Your task to perform on an android device: Open eBay Image 0: 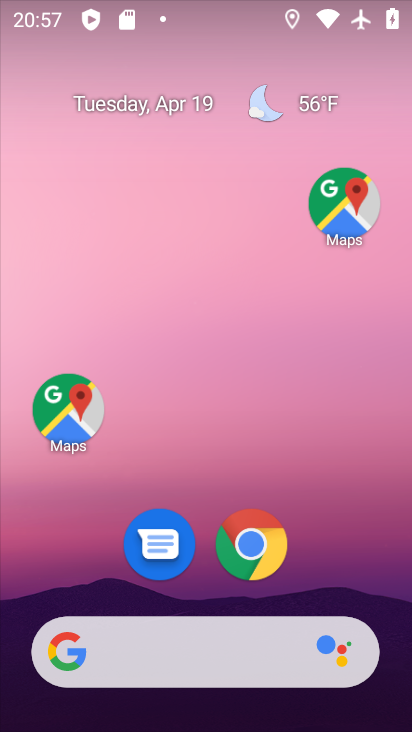
Step 0: drag from (180, 606) to (291, 26)
Your task to perform on an android device: Open eBay Image 1: 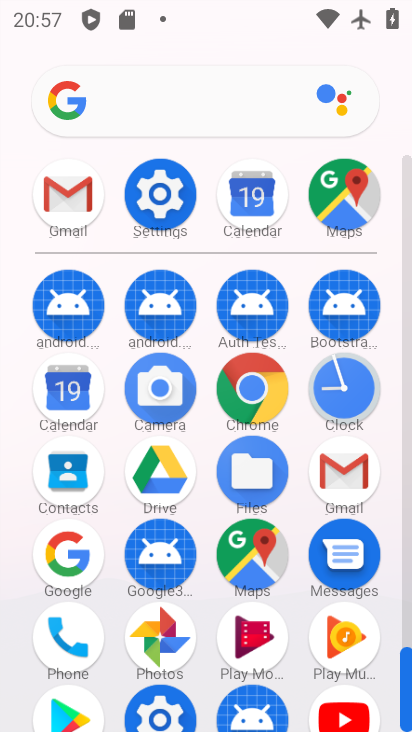
Step 1: click (268, 390)
Your task to perform on an android device: Open eBay Image 2: 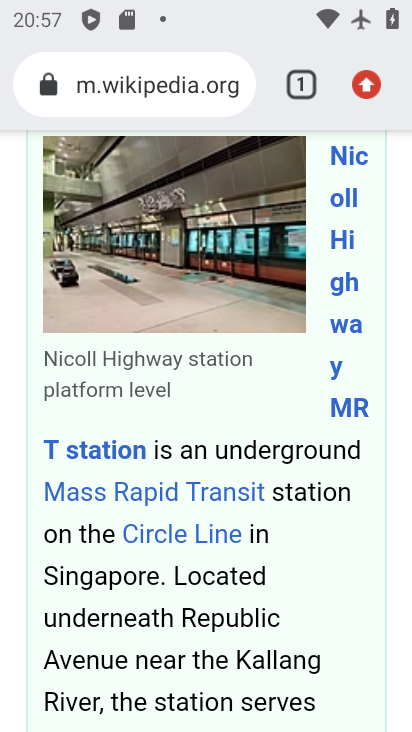
Step 2: click (378, 85)
Your task to perform on an android device: Open eBay Image 3: 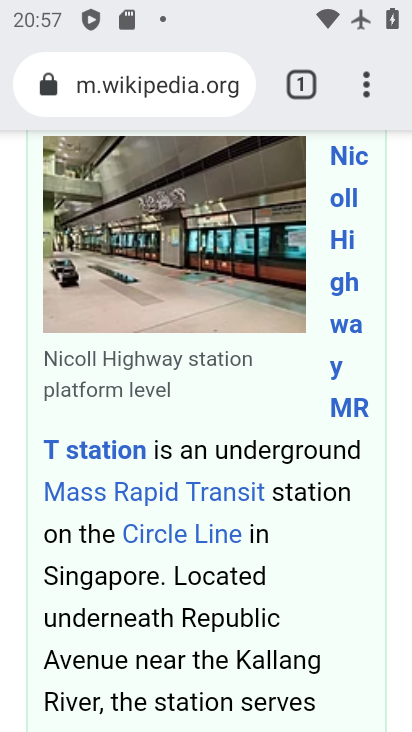
Step 3: click (369, 92)
Your task to perform on an android device: Open eBay Image 4: 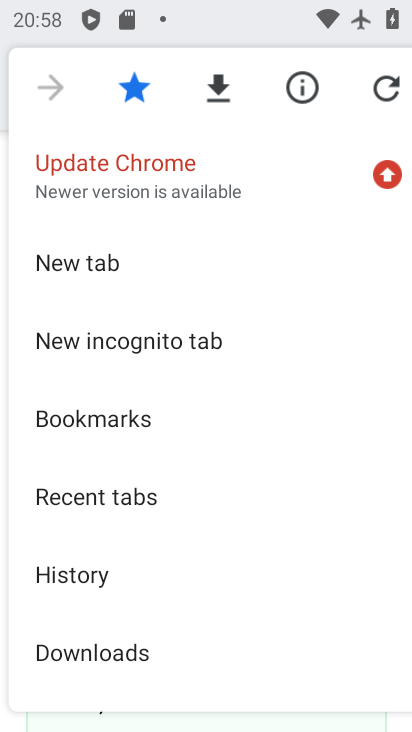
Step 4: click (104, 267)
Your task to perform on an android device: Open eBay Image 5: 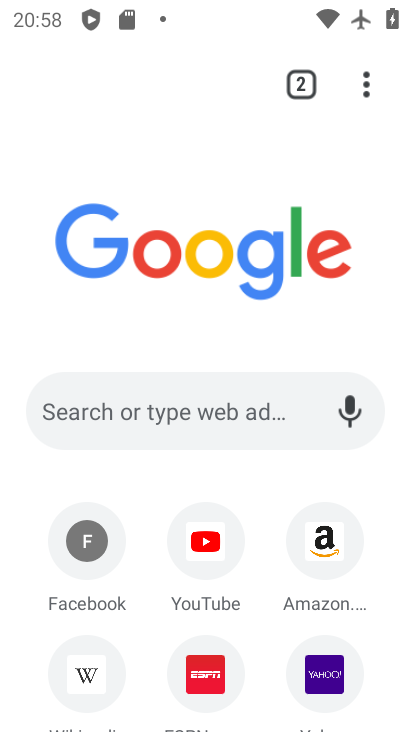
Step 5: drag from (149, 569) to (314, 156)
Your task to perform on an android device: Open eBay Image 6: 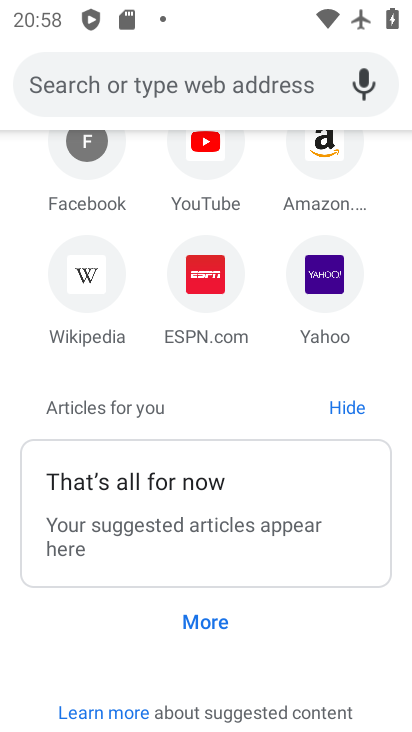
Step 6: drag from (257, 194) to (132, 548)
Your task to perform on an android device: Open eBay Image 7: 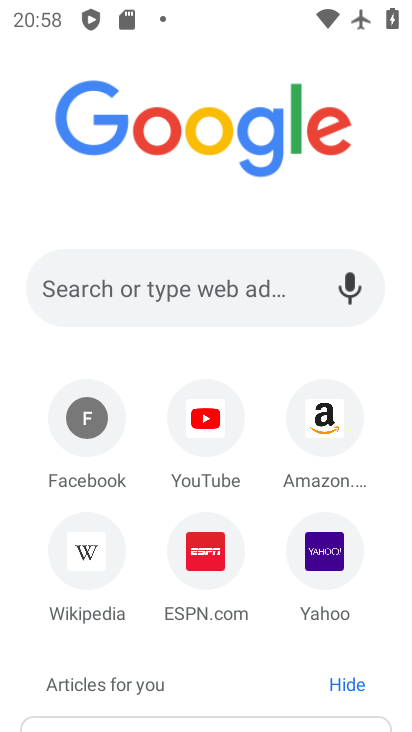
Step 7: drag from (148, 578) to (288, 280)
Your task to perform on an android device: Open eBay Image 8: 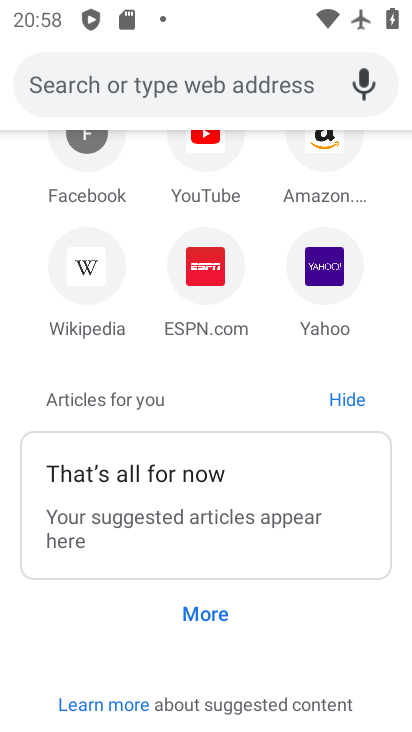
Step 8: drag from (251, 241) to (210, 629)
Your task to perform on an android device: Open eBay Image 9: 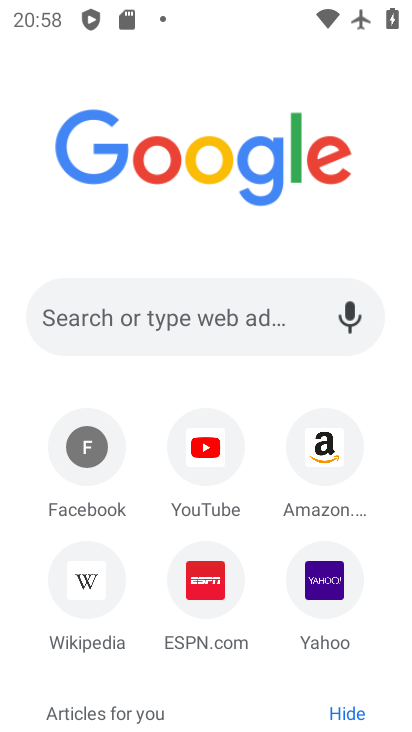
Step 9: click (133, 296)
Your task to perform on an android device: Open eBay Image 10: 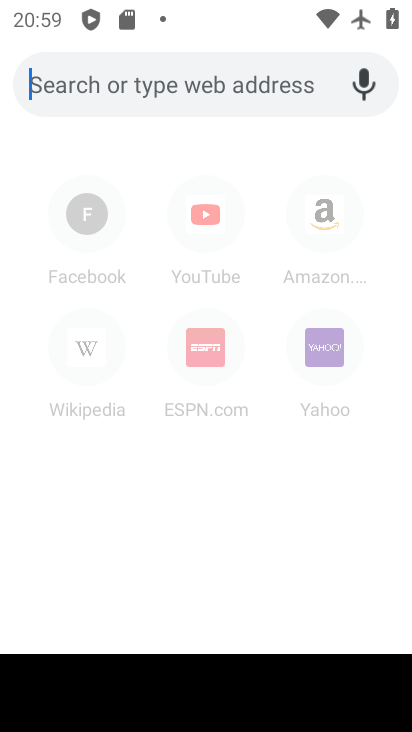
Step 10: type "ebay"
Your task to perform on an android device: Open eBay Image 11: 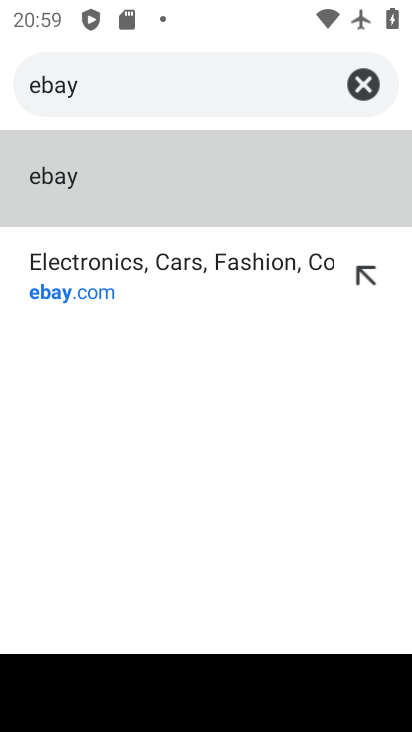
Step 11: click (62, 171)
Your task to perform on an android device: Open eBay Image 12: 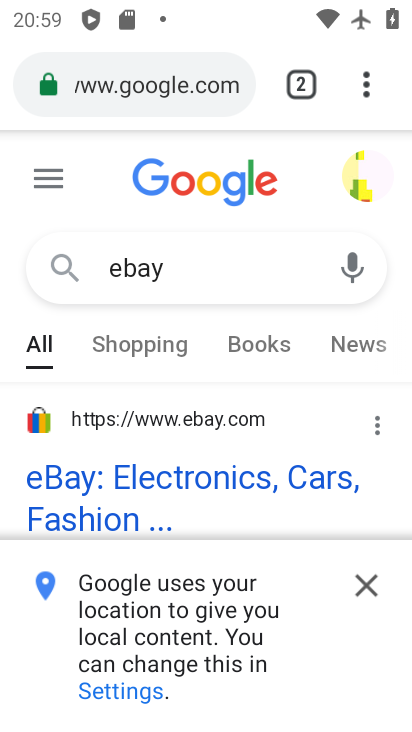
Step 12: drag from (220, 438) to (315, 209)
Your task to perform on an android device: Open eBay Image 13: 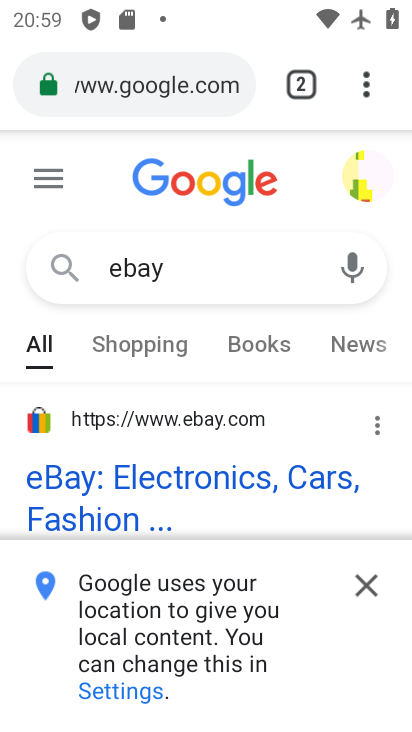
Step 13: click (158, 461)
Your task to perform on an android device: Open eBay Image 14: 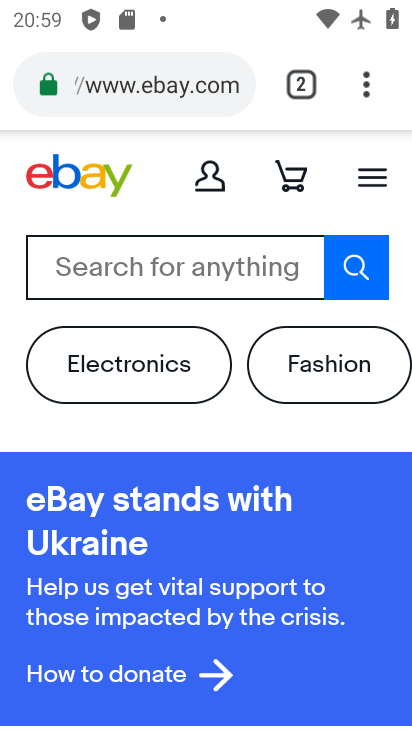
Step 14: task complete